Your task to perform on an android device: find snoozed emails in the gmail app Image 0: 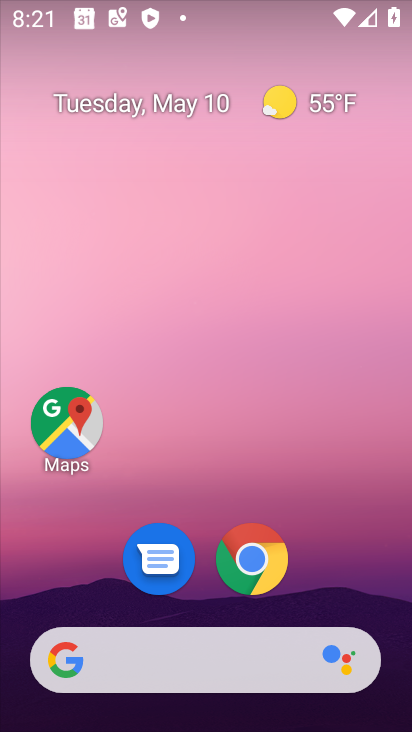
Step 0: drag from (201, 717) to (147, 213)
Your task to perform on an android device: find snoozed emails in the gmail app Image 1: 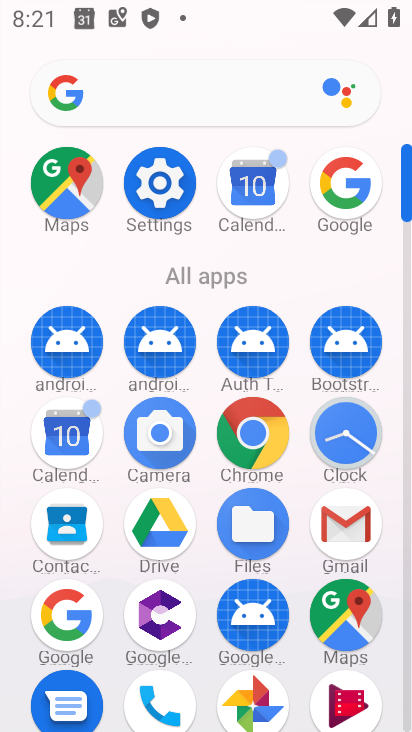
Step 1: click (356, 530)
Your task to perform on an android device: find snoozed emails in the gmail app Image 2: 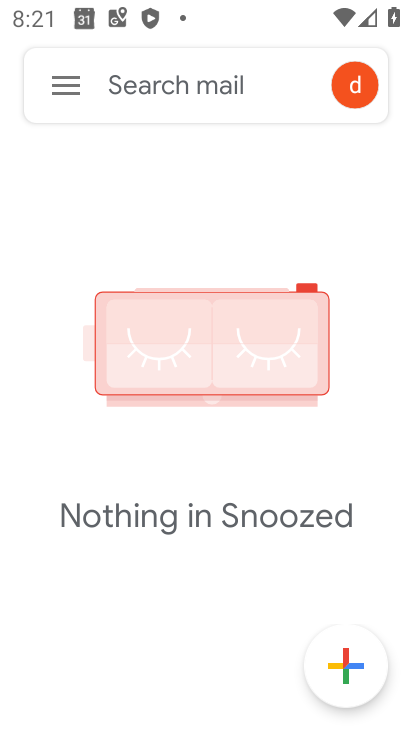
Step 2: task complete